Your task to perform on an android device: open app "Viber Messenger" Image 0: 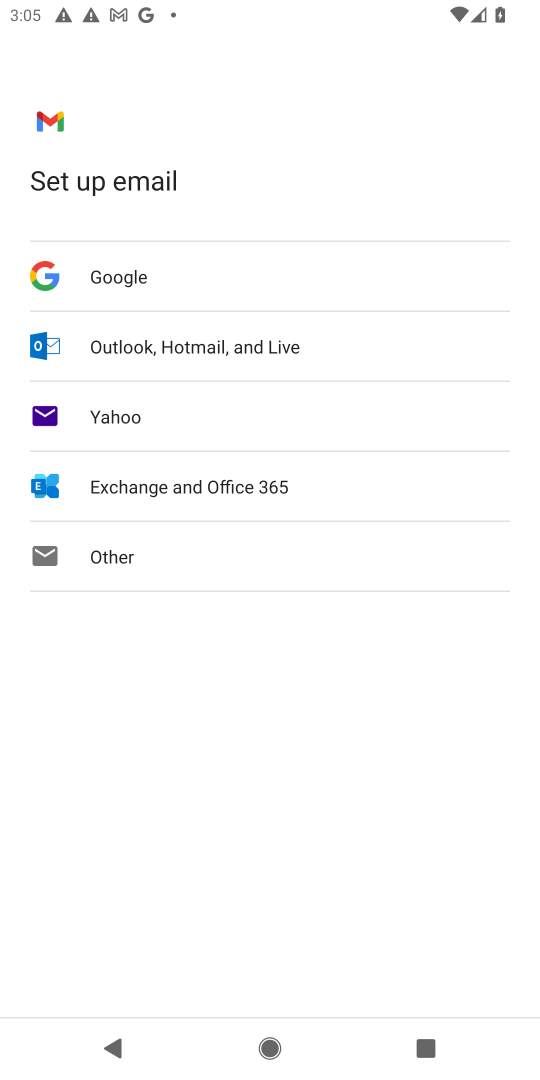
Step 0: press home button
Your task to perform on an android device: open app "Viber Messenger" Image 1: 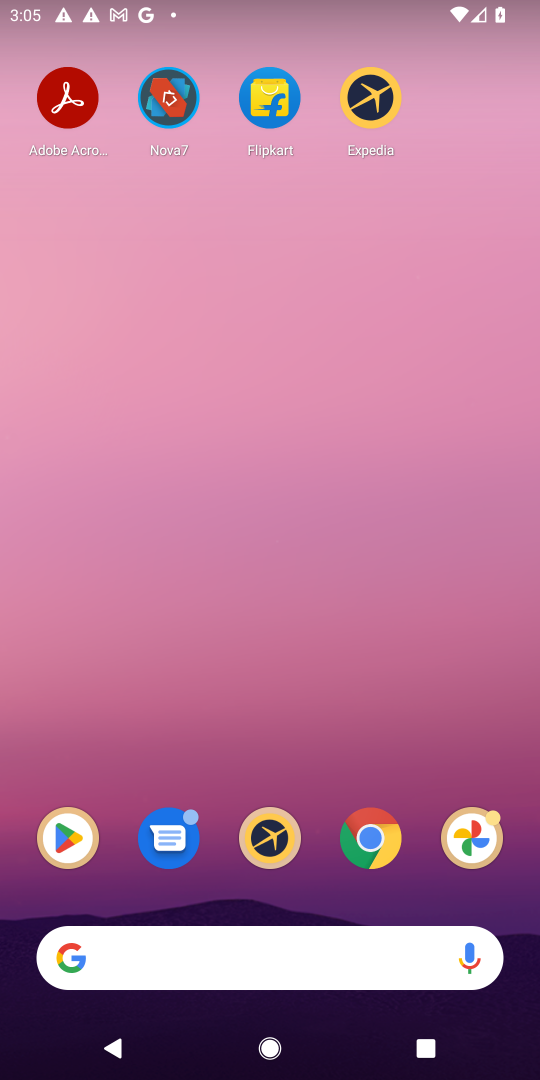
Step 1: click (89, 813)
Your task to perform on an android device: open app "Viber Messenger" Image 2: 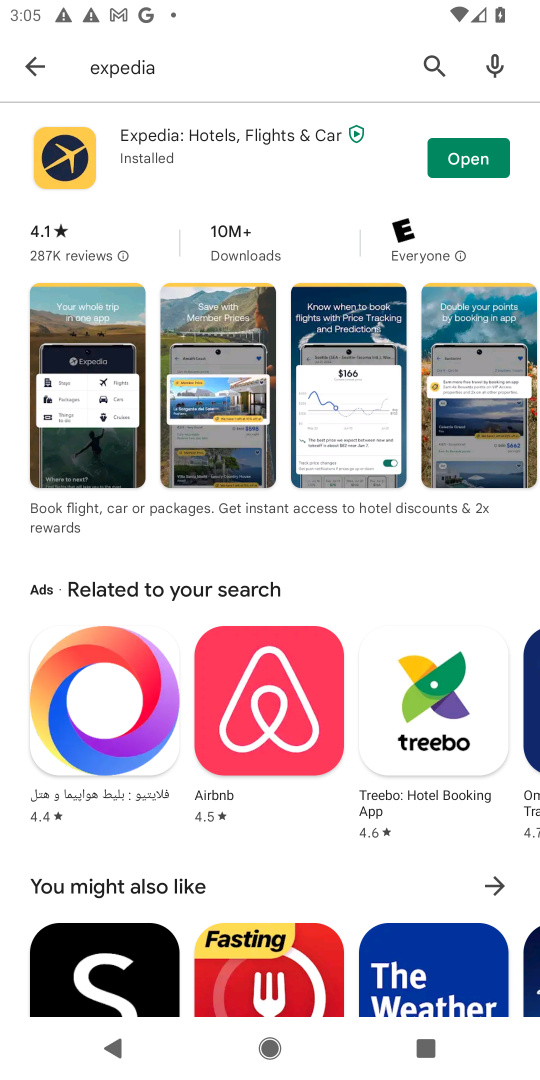
Step 2: click (432, 67)
Your task to perform on an android device: open app "Viber Messenger" Image 3: 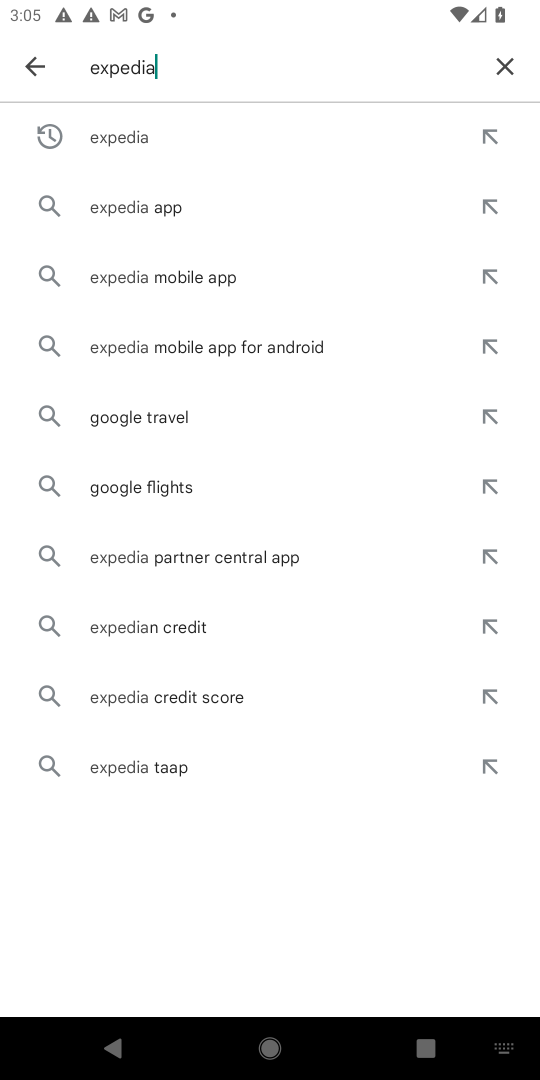
Step 3: click (500, 67)
Your task to perform on an android device: open app "Viber Messenger" Image 4: 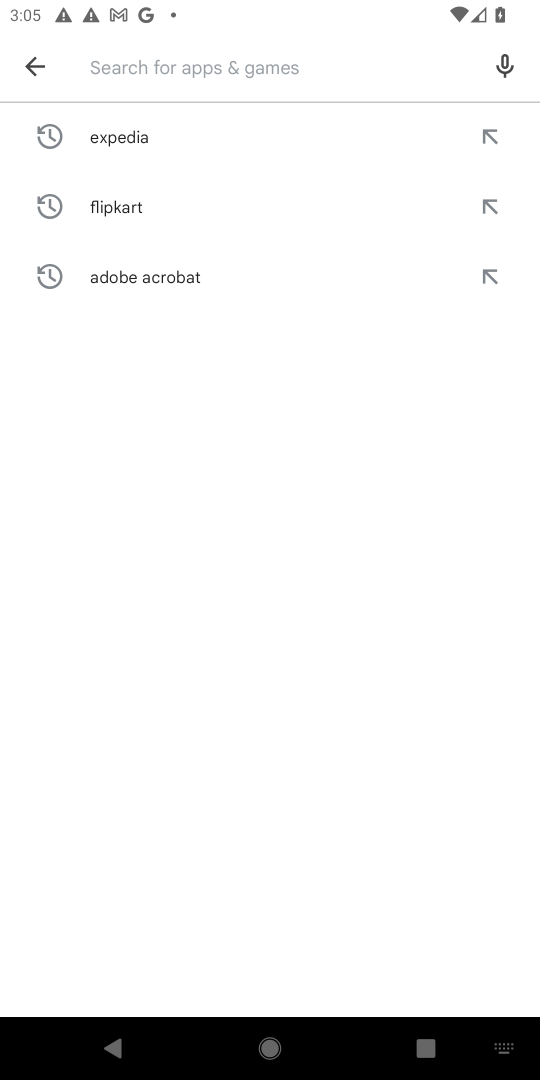
Step 4: type "vibe"
Your task to perform on an android device: open app "Viber Messenger" Image 5: 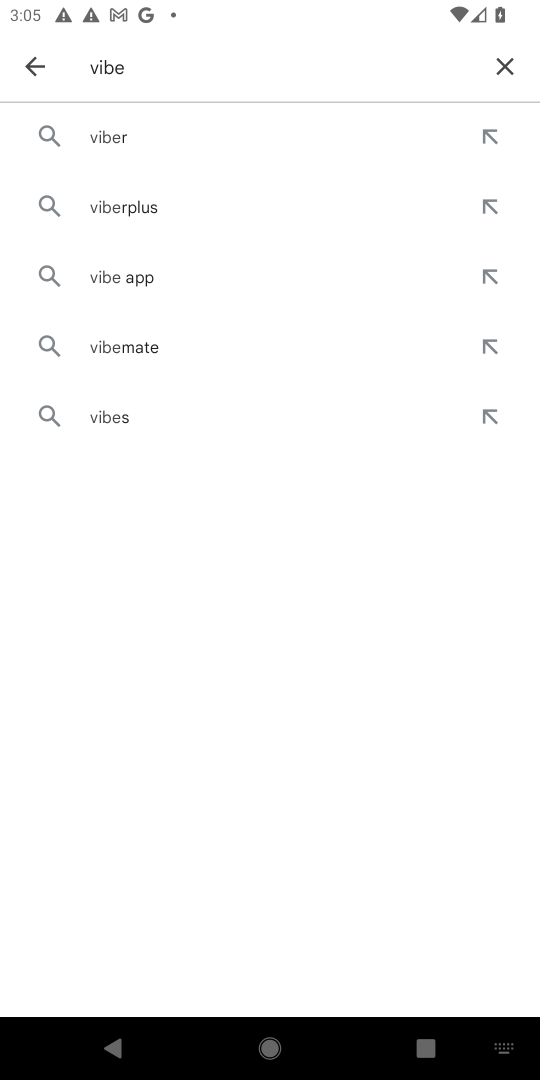
Step 5: click (134, 129)
Your task to perform on an android device: open app "Viber Messenger" Image 6: 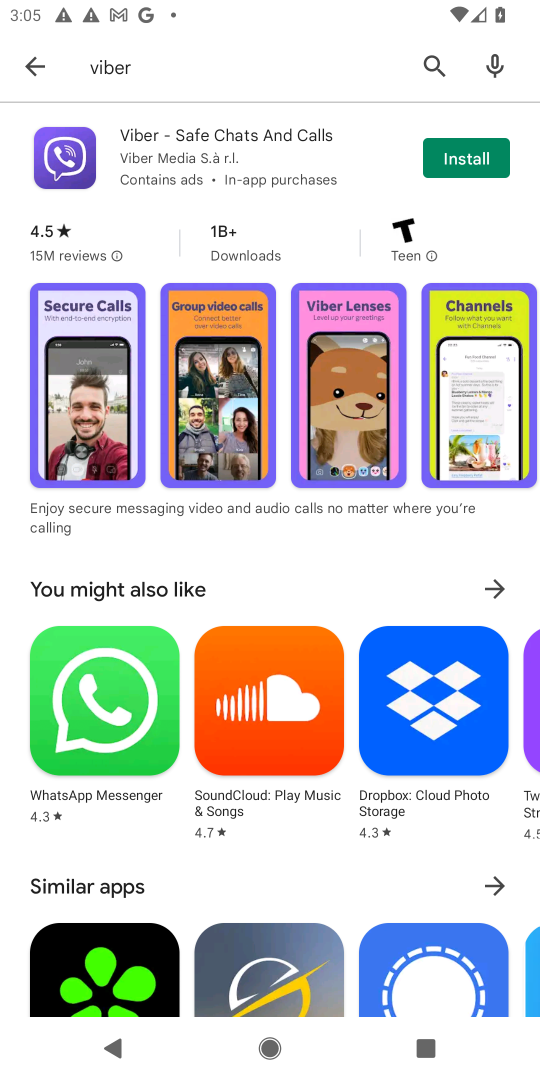
Step 6: task complete